Your task to perform on an android device: Go to Maps Image 0: 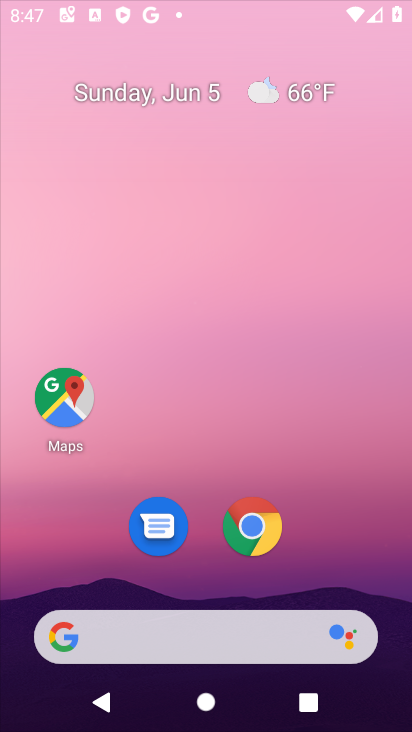
Step 0: click (137, 653)
Your task to perform on an android device: Go to Maps Image 1: 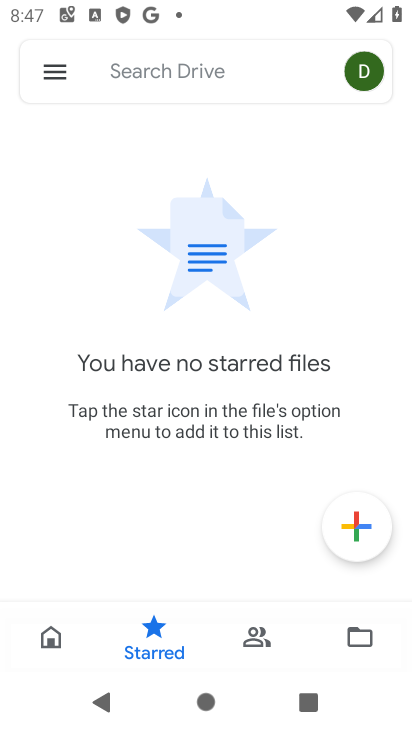
Step 1: press home button
Your task to perform on an android device: Go to Maps Image 2: 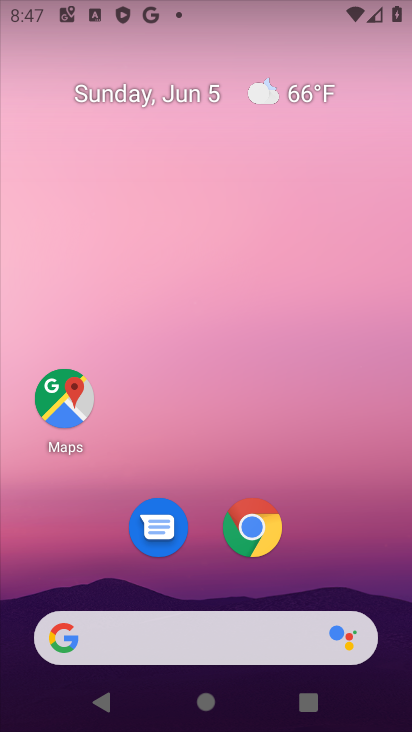
Step 2: click (72, 375)
Your task to perform on an android device: Go to Maps Image 3: 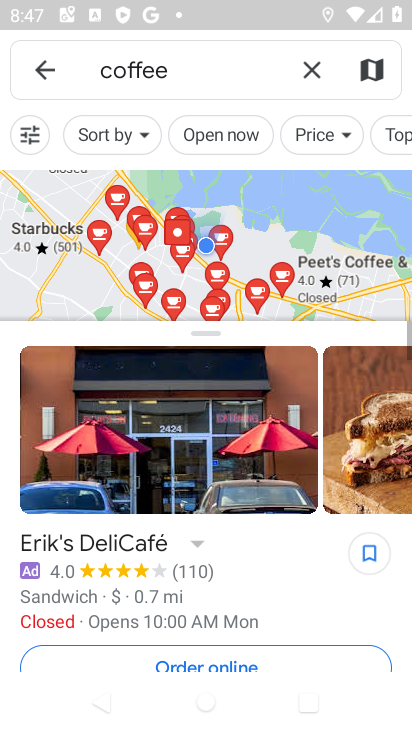
Step 3: task complete